Your task to perform on an android device: Open network settings Image 0: 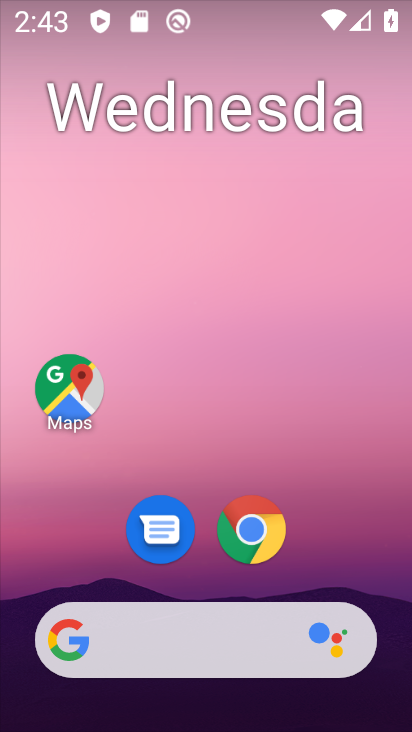
Step 0: drag from (317, 542) to (378, 45)
Your task to perform on an android device: Open network settings Image 1: 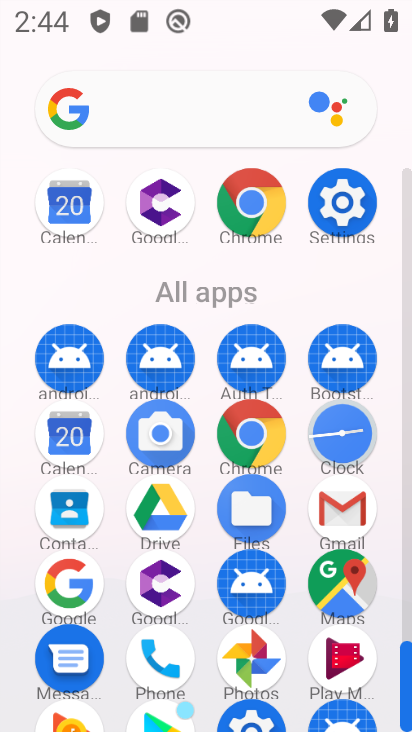
Step 1: click (332, 204)
Your task to perform on an android device: Open network settings Image 2: 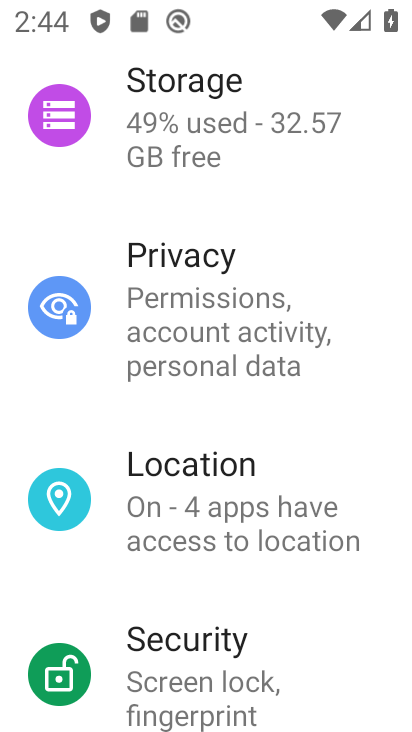
Step 2: drag from (249, 207) to (254, 271)
Your task to perform on an android device: Open network settings Image 3: 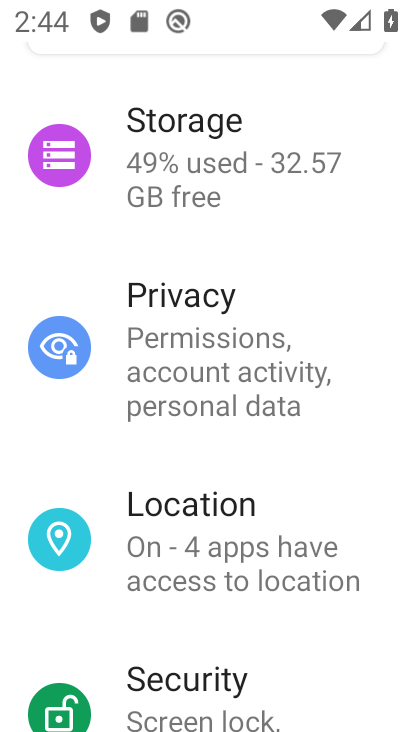
Step 3: drag from (240, 239) to (220, 311)
Your task to perform on an android device: Open network settings Image 4: 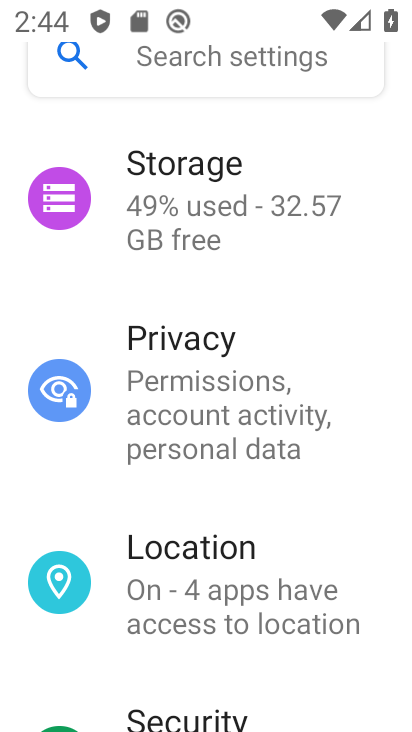
Step 4: drag from (197, 239) to (197, 314)
Your task to perform on an android device: Open network settings Image 5: 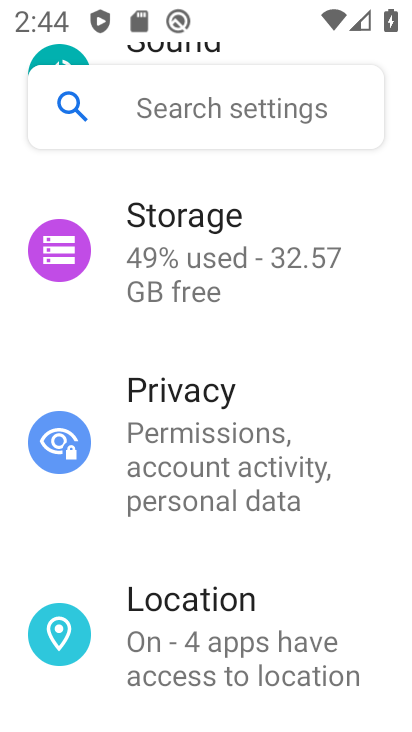
Step 5: drag from (179, 265) to (147, 352)
Your task to perform on an android device: Open network settings Image 6: 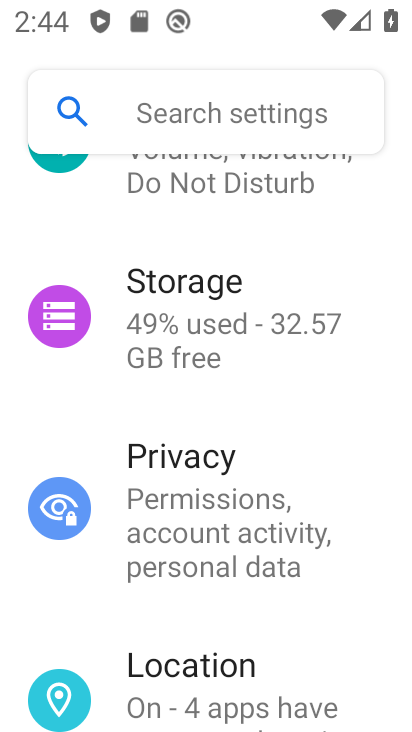
Step 6: drag from (158, 266) to (153, 330)
Your task to perform on an android device: Open network settings Image 7: 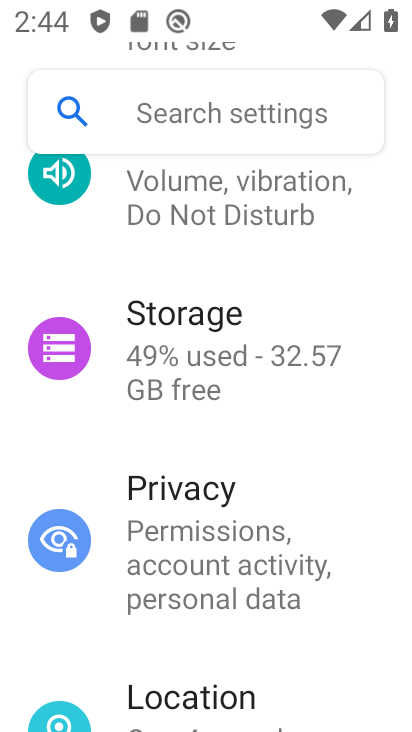
Step 7: drag from (121, 261) to (118, 334)
Your task to perform on an android device: Open network settings Image 8: 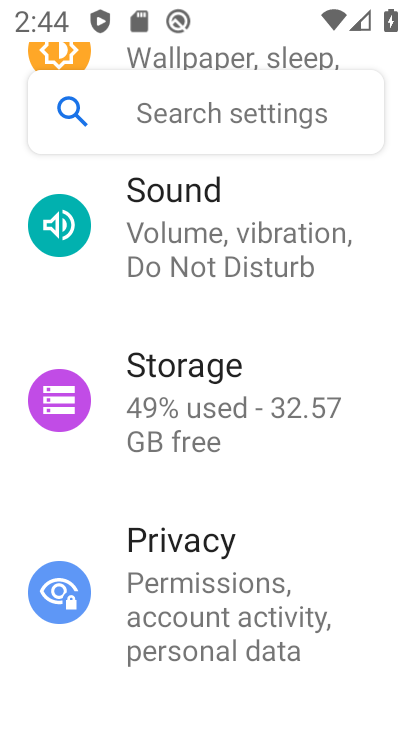
Step 8: drag from (105, 288) to (101, 347)
Your task to perform on an android device: Open network settings Image 9: 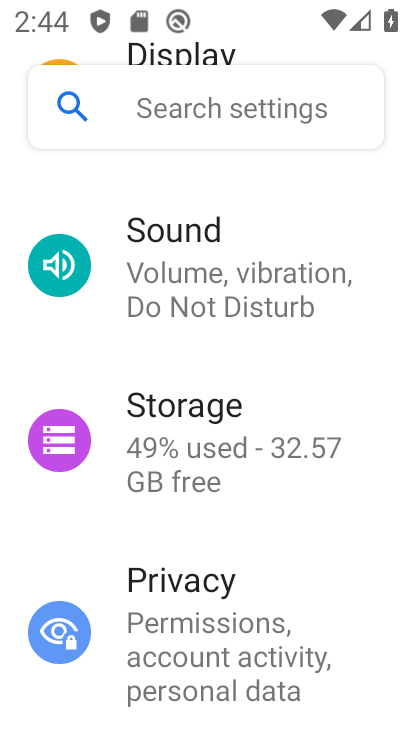
Step 9: drag from (137, 225) to (135, 369)
Your task to perform on an android device: Open network settings Image 10: 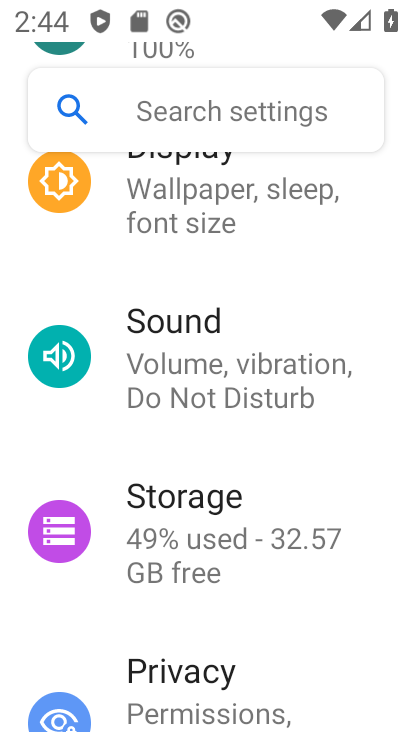
Step 10: drag from (147, 265) to (140, 387)
Your task to perform on an android device: Open network settings Image 11: 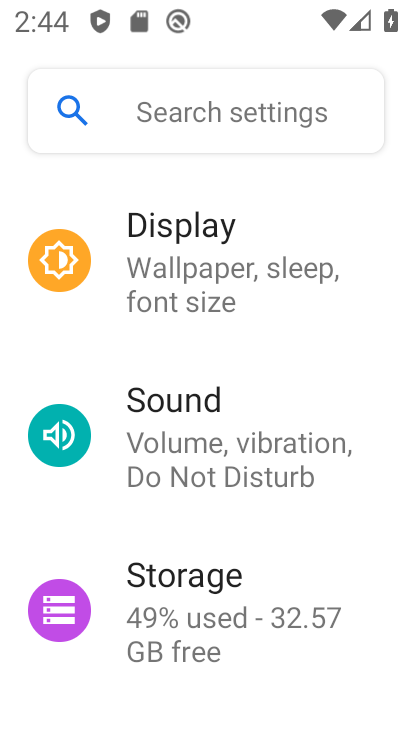
Step 11: drag from (146, 314) to (145, 444)
Your task to perform on an android device: Open network settings Image 12: 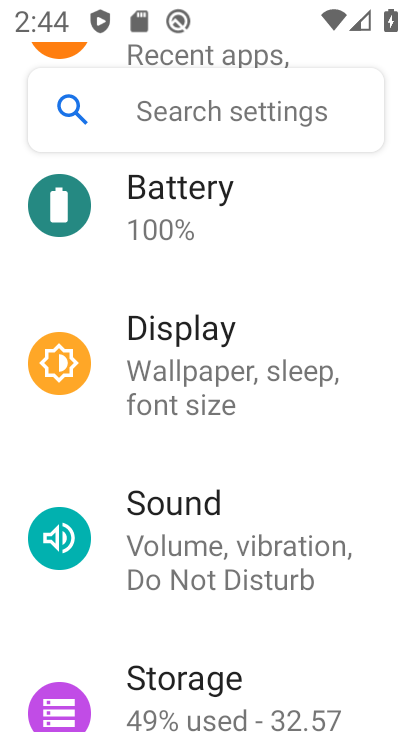
Step 12: drag from (176, 318) to (174, 422)
Your task to perform on an android device: Open network settings Image 13: 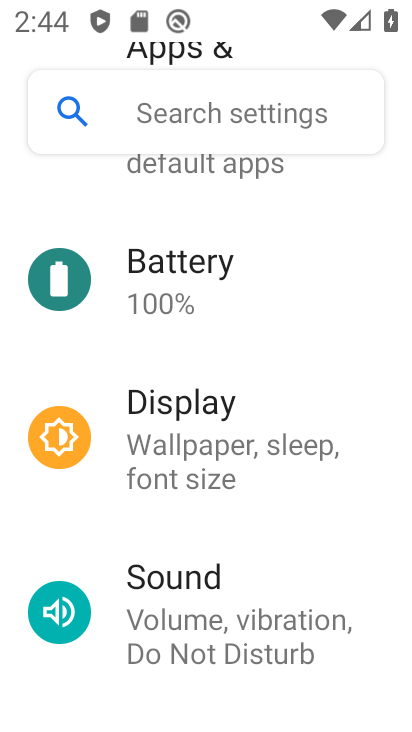
Step 13: drag from (183, 328) to (149, 449)
Your task to perform on an android device: Open network settings Image 14: 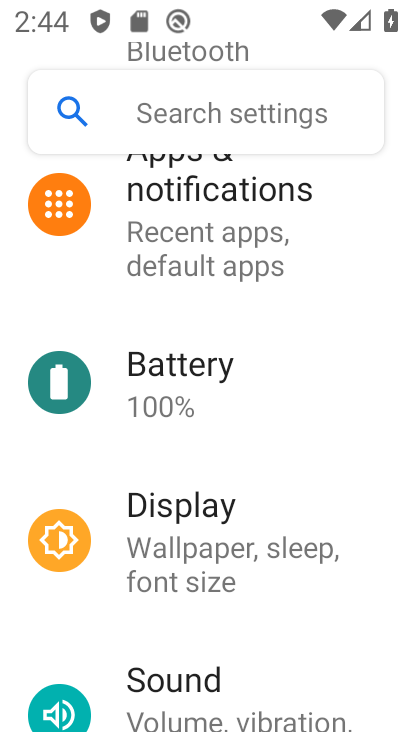
Step 14: drag from (170, 348) to (144, 435)
Your task to perform on an android device: Open network settings Image 15: 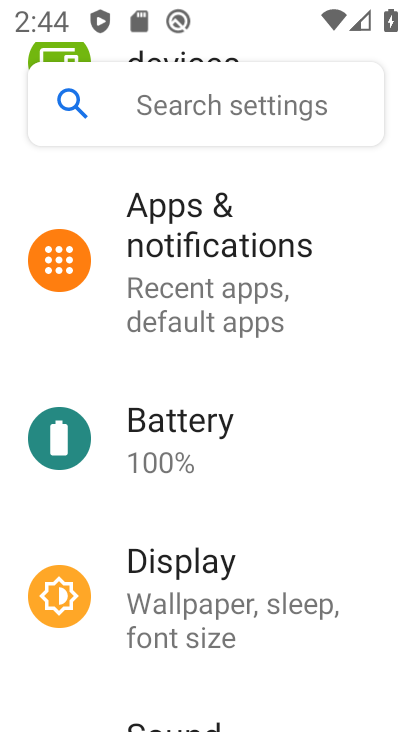
Step 15: drag from (197, 331) to (170, 459)
Your task to perform on an android device: Open network settings Image 16: 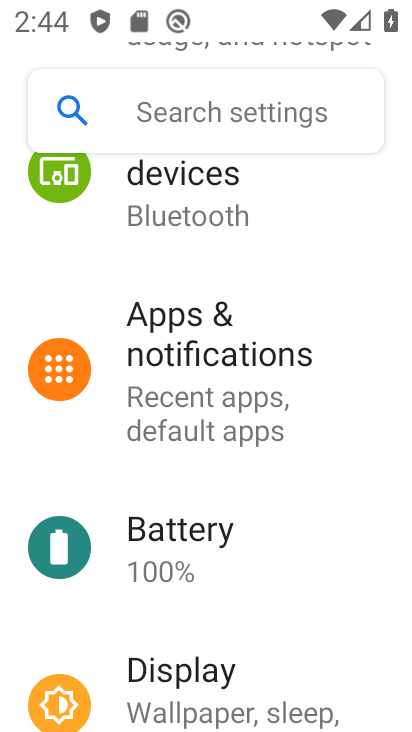
Step 16: drag from (178, 357) to (154, 457)
Your task to perform on an android device: Open network settings Image 17: 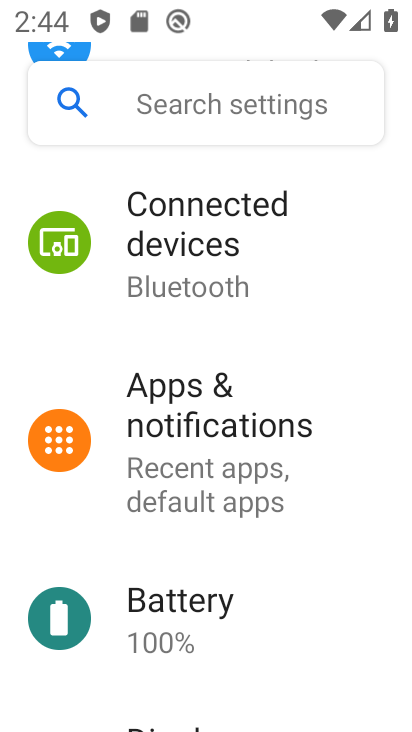
Step 17: click (168, 424)
Your task to perform on an android device: Open network settings Image 18: 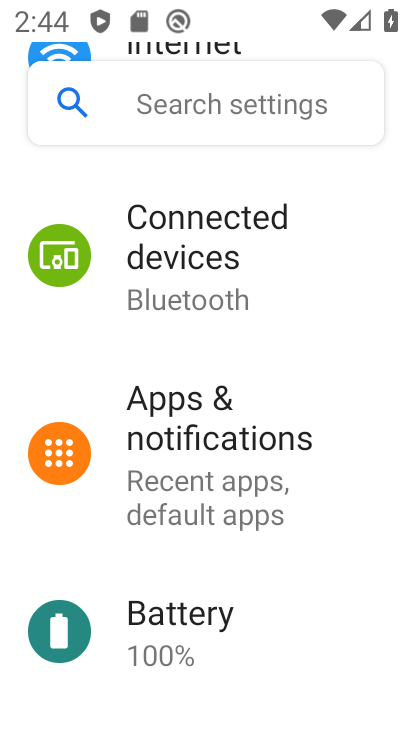
Step 18: drag from (242, 237) to (192, 416)
Your task to perform on an android device: Open network settings Image 19: 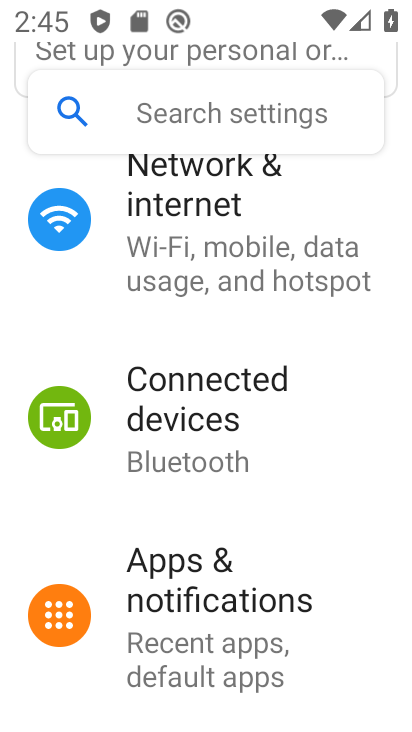
Step 19: click (158, 249)
Your task to perform on an android device: Open network settings Image 20: 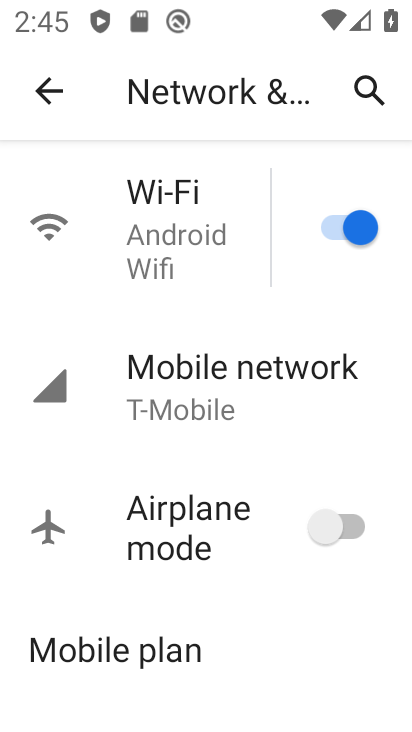
Step 20: click (97, 400)
Your task to perform on an android device: Open network settings Image 21: 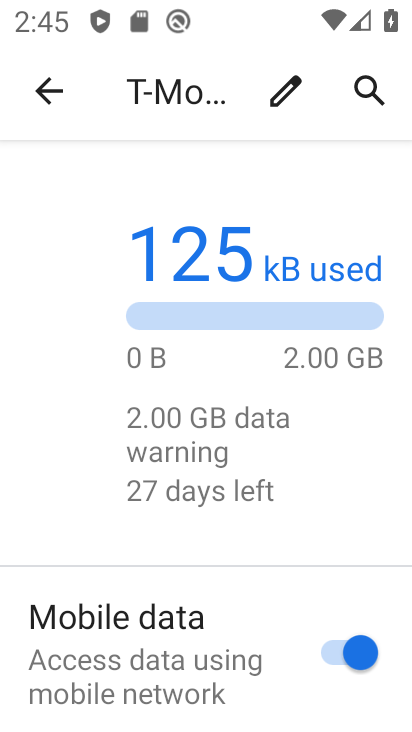
Step 21: task complete